Your task to perform on an android device: check the backup settings in the google photos Image 0: 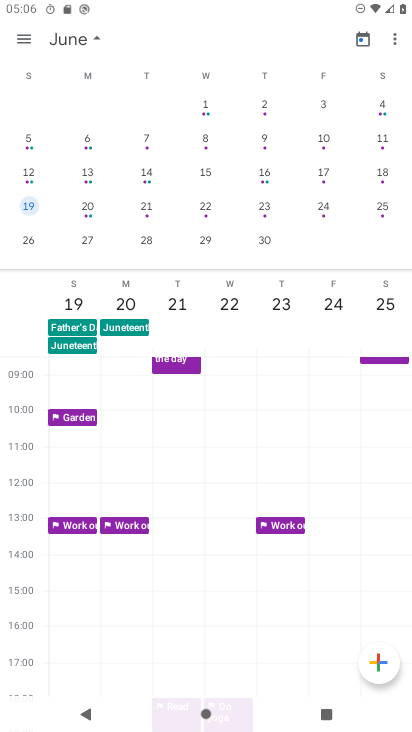
Step 0: press home button
Your task to perform on an android device: check the backup settings in the google photos Image 1: 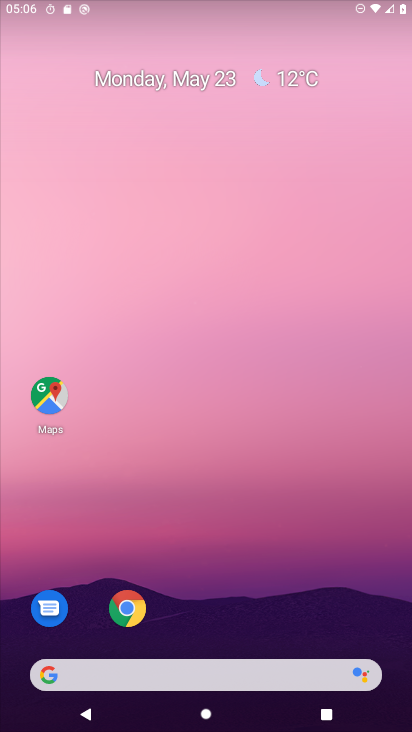
Step 1: drag from (281, 493) to (126, 3)
Your task to perform on an android device: check the backup settings in the google photos Image 2: 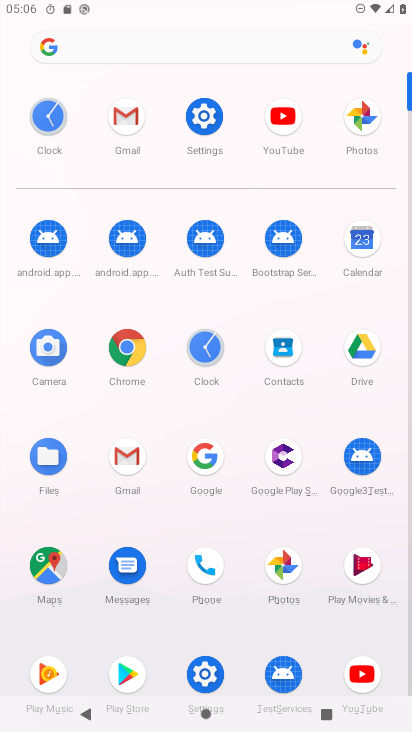
Step 2: click (279, 579)
Your task to perform on an android device: check the backup settings in the google photos Image 3: 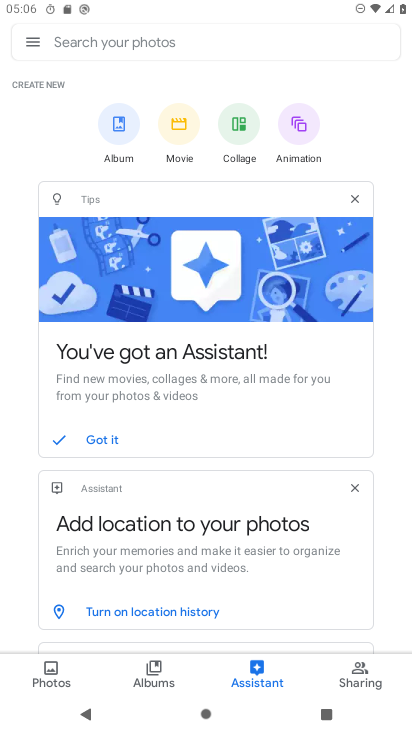
Step 3: click (30, 42)
Your task to perform on an android device: check the backup settings in the google photos Image 4: 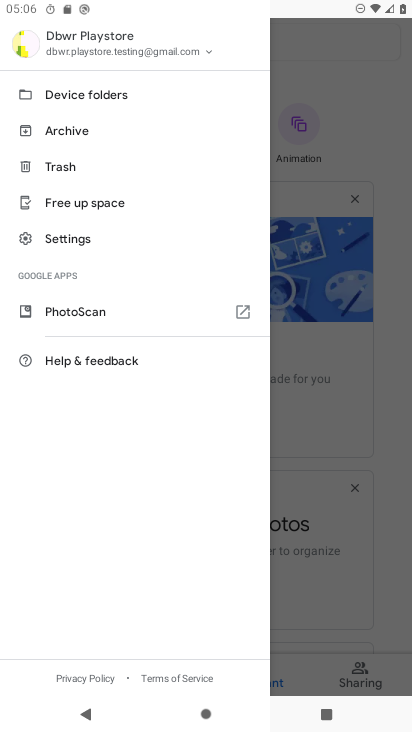
Step 4: click (81, 244)
Your task to perform on an android device: check the backup settings in the google photos Image 5: 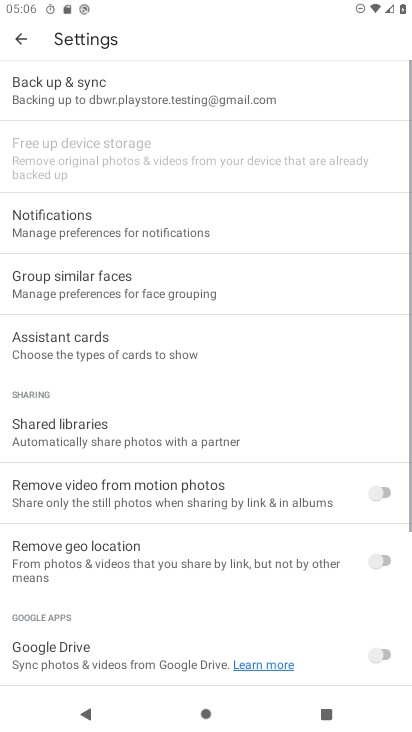
Step 5: click (121, 97)
Your task to perform on an android device: check the backup settings in the google photos Image 6: 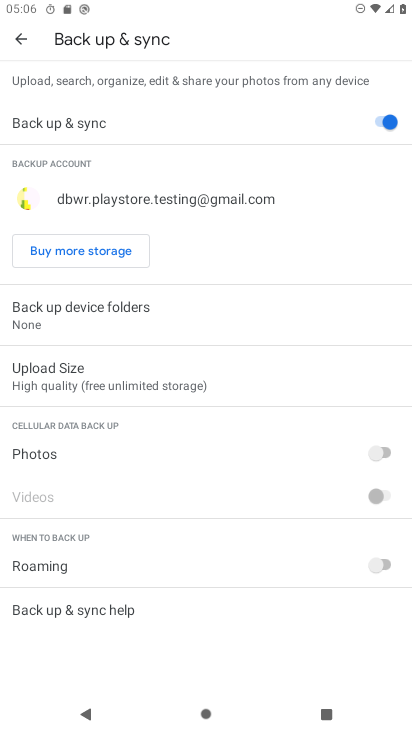
Step 6: task complete